Your task to perform on an android device: Show me popular games on the Play Store Image 0: 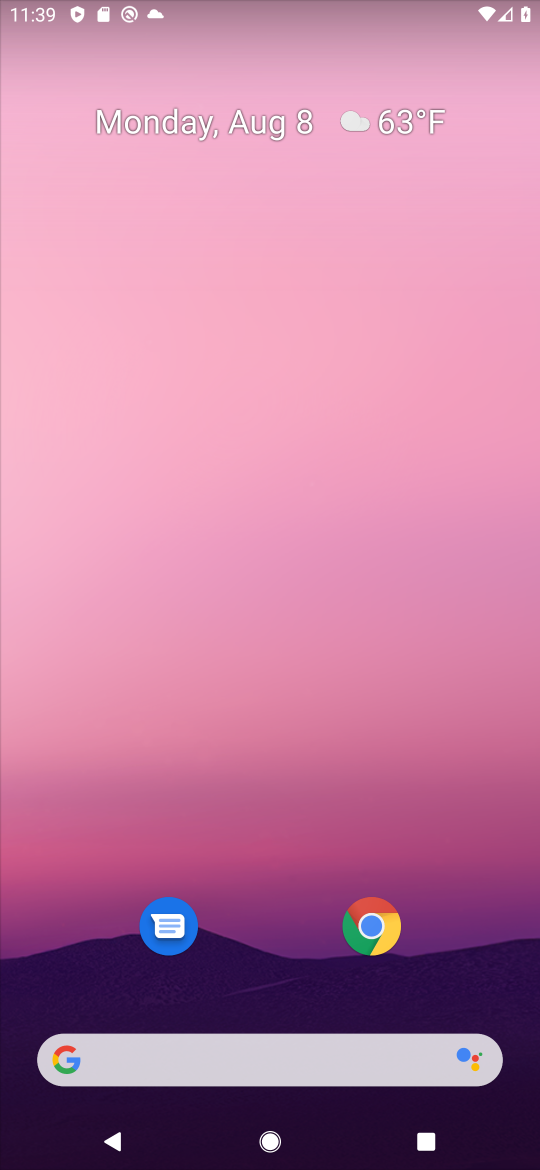
Step 0: press home button
Your task to perform on an android device: Show me popular games on the Play Store Image 1: 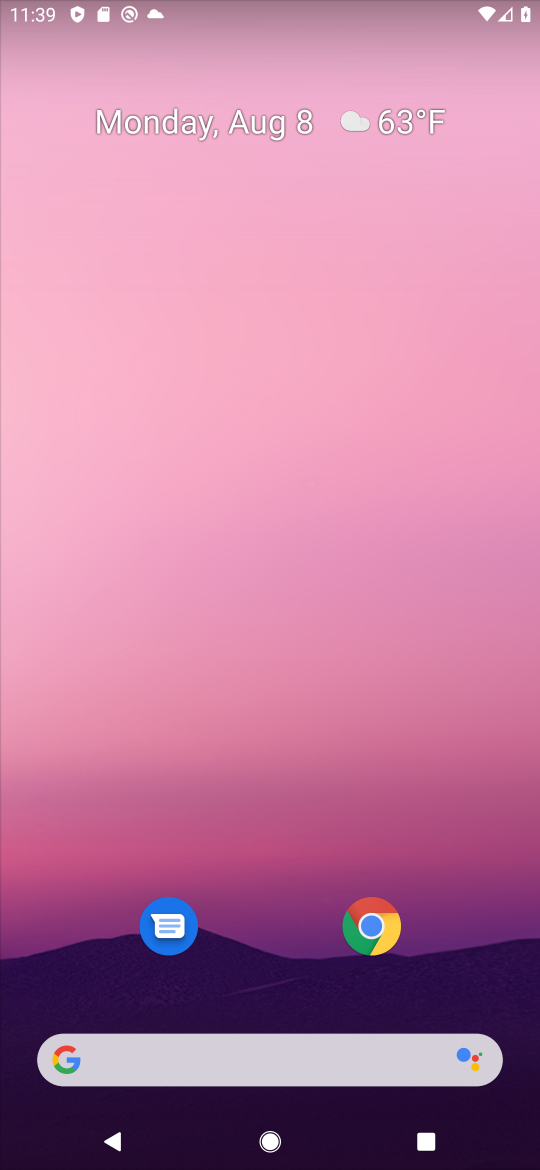
Step 1: drag from (0, 999) to (256, 96)
Your task to perform on an android device: Show me popular games on the Play Store Image 2: 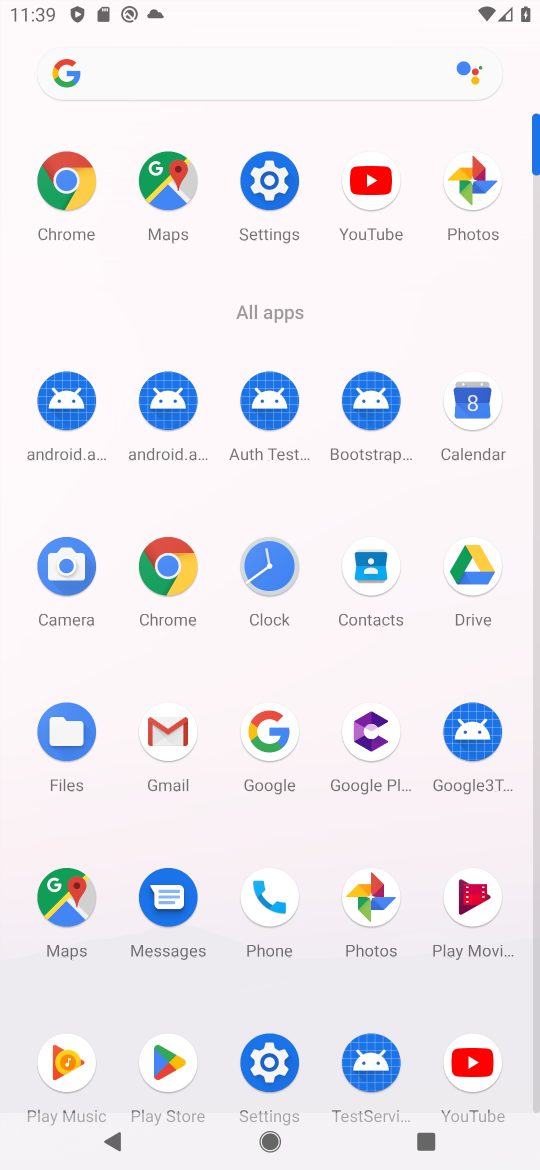
Step 2: click (156, 1049)
Your task to perform on an android device: Show me popular games on the Play Store Image 3: 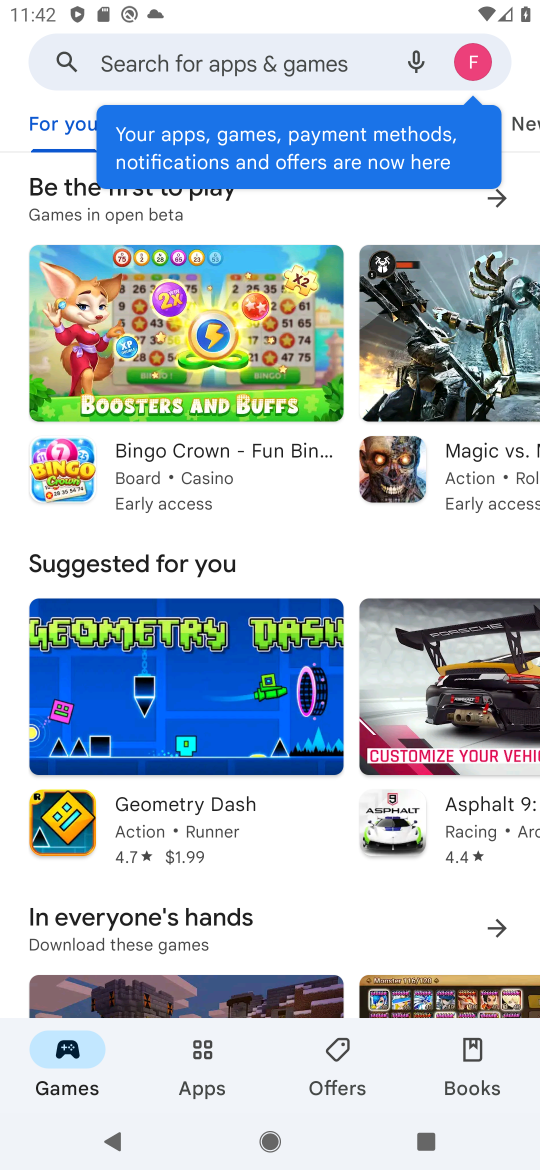
Step 3: task complete